Your task to perform on an android device: Is it going to rain this weekend? Image 0: 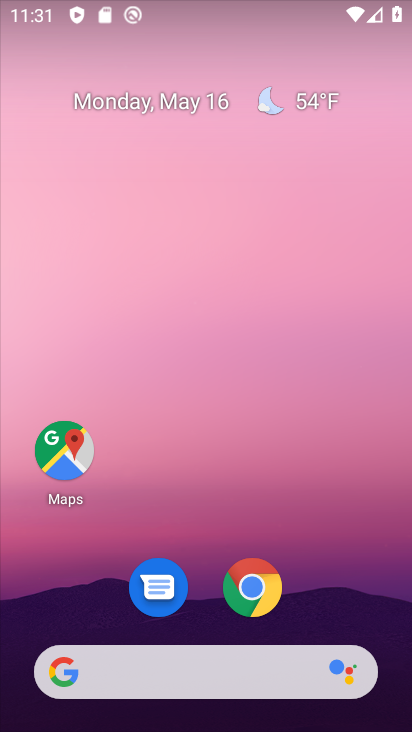
Step 0: click (337, 100)
Your task to perform on an android device: Is it going to rain this weekend? Image 1: 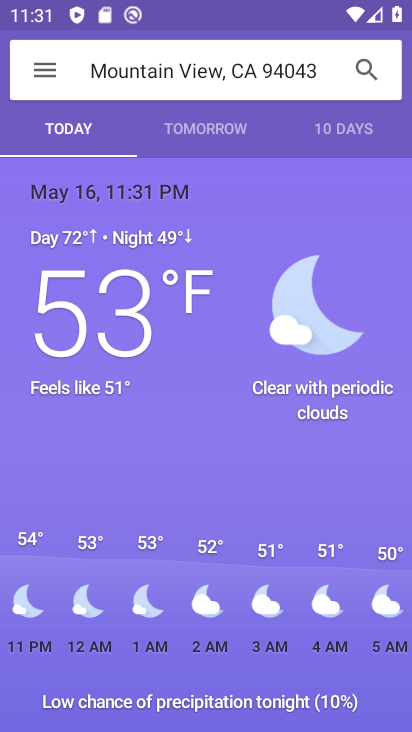
Step 1: click (341, 137)
Your task to perform on an android device: Is it going to rain this weekend? Image 2: 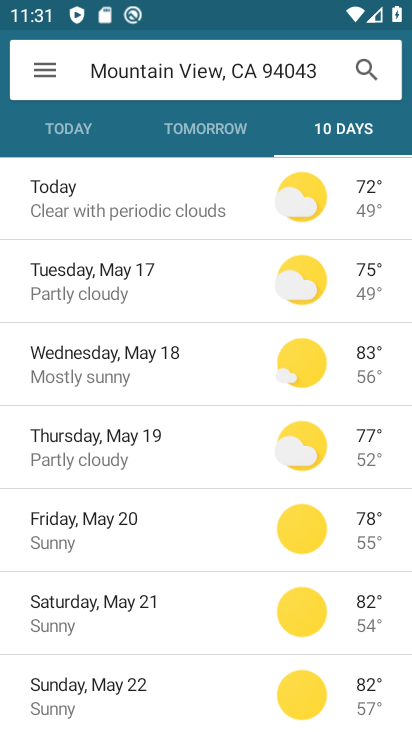
Step 2: task complete